Your task to perform on an android device: Check the latest 3D printers on Target. Image 0: 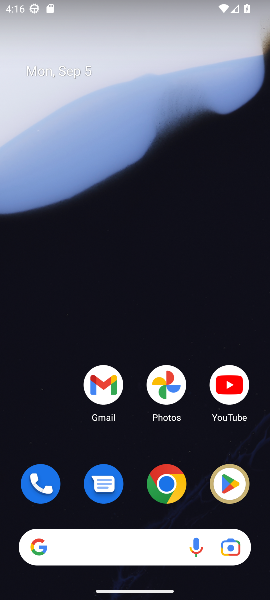
Step 0: click (170, 486)
Your task to perform on an android device: Check the latest 3D printers on Target. Image 1: 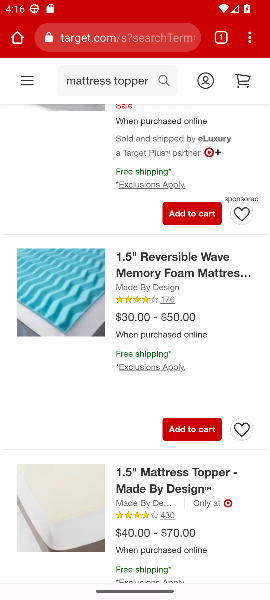
Step 1: click (164, 76)
Your task to perform on an android device: Check the latest 3D printers on Target. Image 2: 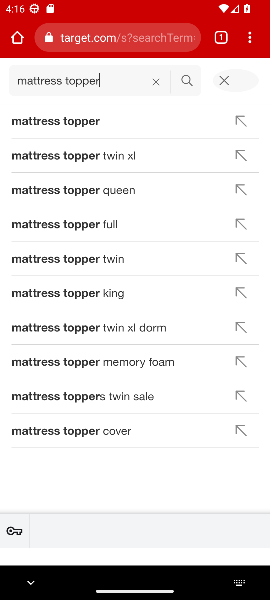
Step 2: click (157, 81)
Your task to perform on an android device: Check the latest 3D printers on Target. Image 3: 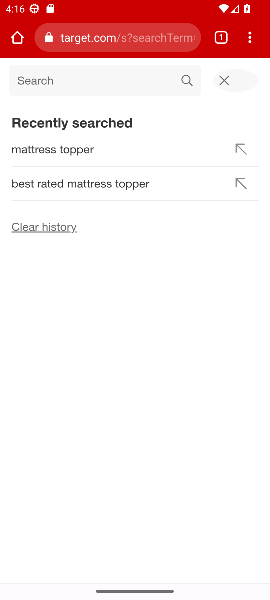
Step 3: click (32, 74)
Your task to perform on an android device: Check the latest 3D printers on Target. Image 4: 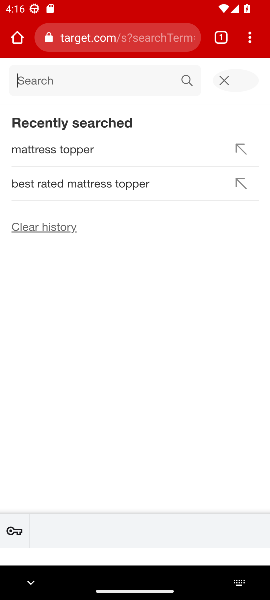
Step 4: type "3D printers"
Your task to perform on an android device: Check the latest 3D printers on Target. Image 5: 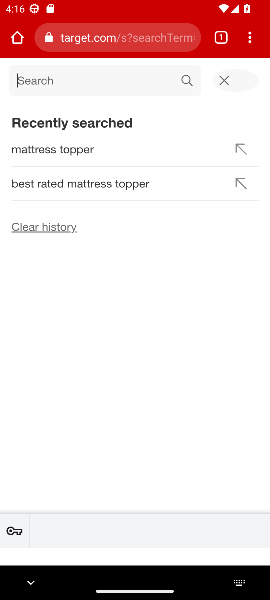
Step 5: press enter
Your task to perform on an android device: Check the latest 3D printers on Target. Image 6: 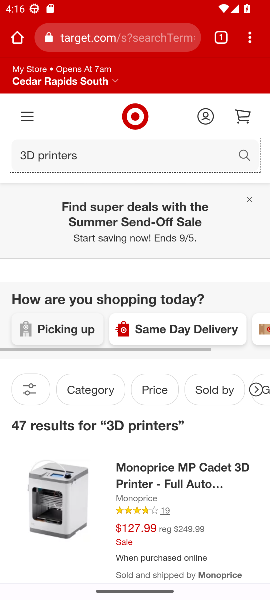
Step 6: task complete